Your task to perform on an android device: turn notification dots on Image 0: 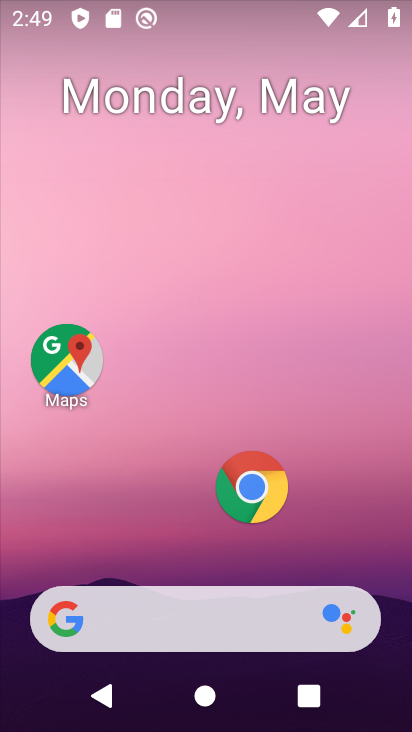
Step 0: drag from (190, 541) to (201, 96)
Your task to perform on an android device: turn notification dots on Image 1: 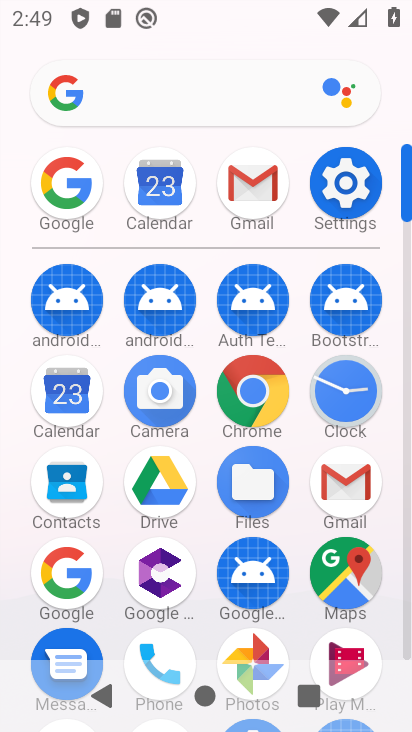
Step 1: click (354, 161)
Your task to perform on an android device: turn notification dots on Image 2: 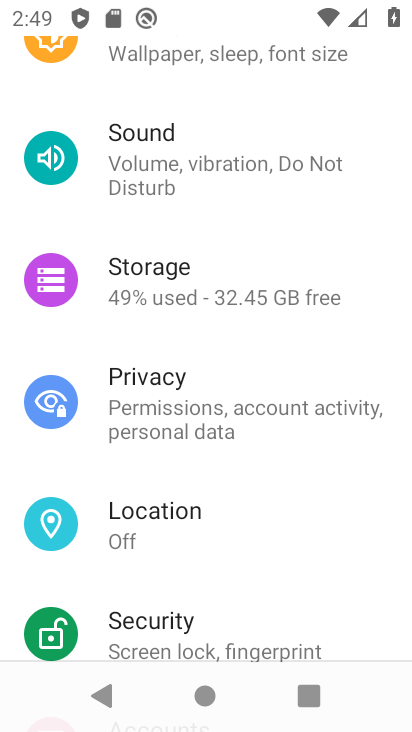
Step 2: drag from (208, 218) to (207, 461)
Your task to perform on an android device: turn notification dots on Image 3: 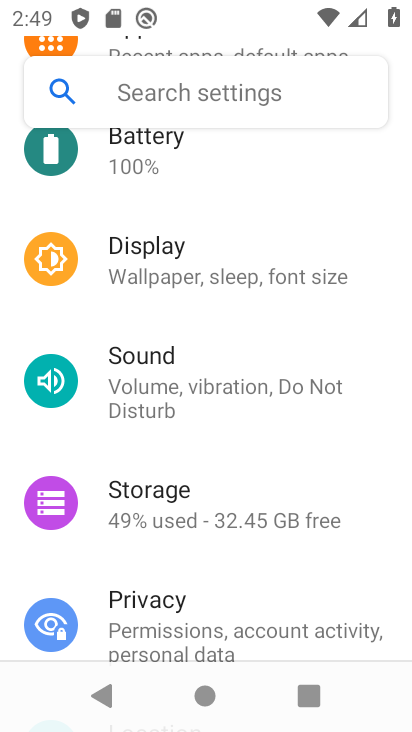
Step 3: drag from (211, 226) to (234, 408)
Your task to perform on an android device: turn notification dots on Image 4: 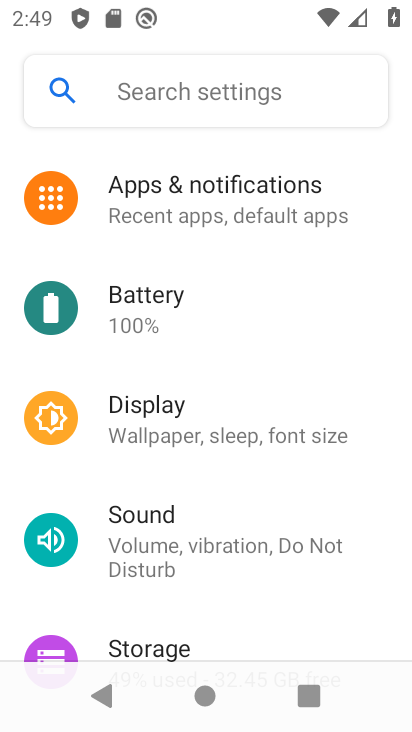
Step 4: click (186, 194)
Your task to perform on an android device: turn notification dots on Image 5: 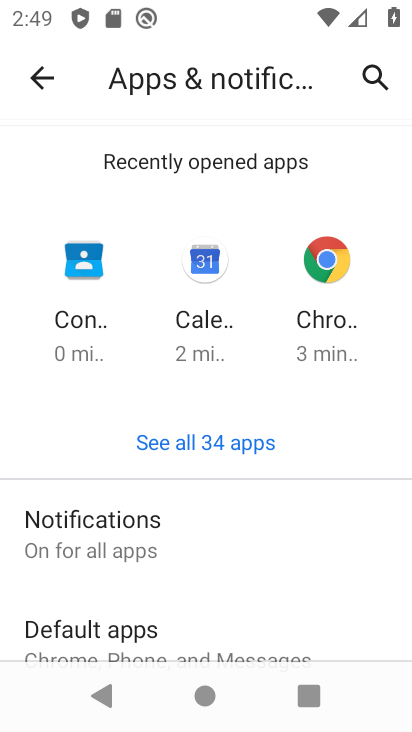
Step 5: click (159, 530)
Your task to perform on an android device: turn notification dots on Image 6: 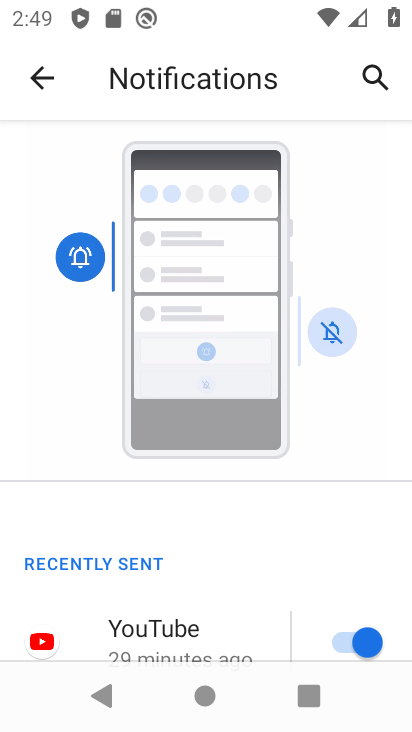
Step 6: drag from (120, 626) to (156, 359)
Your task to perform on an android device: turn notification dots on Image 7: 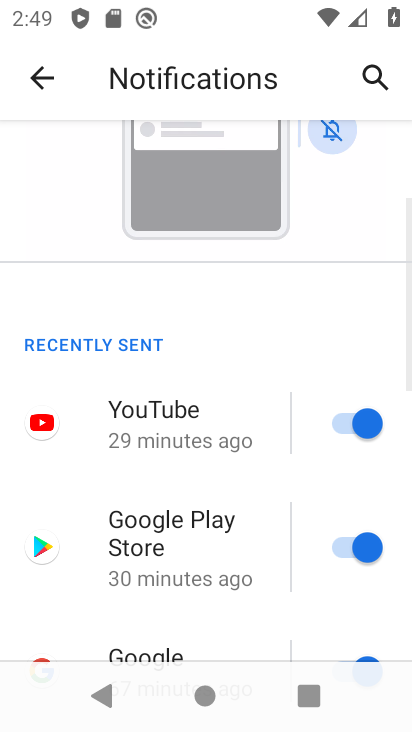
Step 7: drag from (210, 574) to (236, 231)
Your task to perform on an android device: turn notification dots on Image 8: 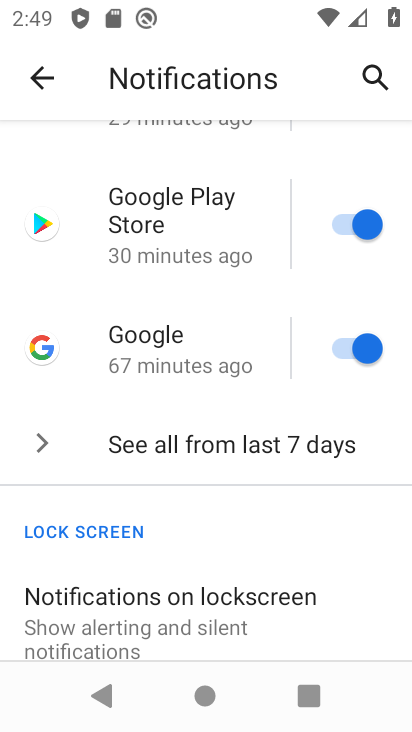
Step 8: drag from (203, 598) to (227, 317)
Your task to perform on an android device: turn notification dots on Image 9: 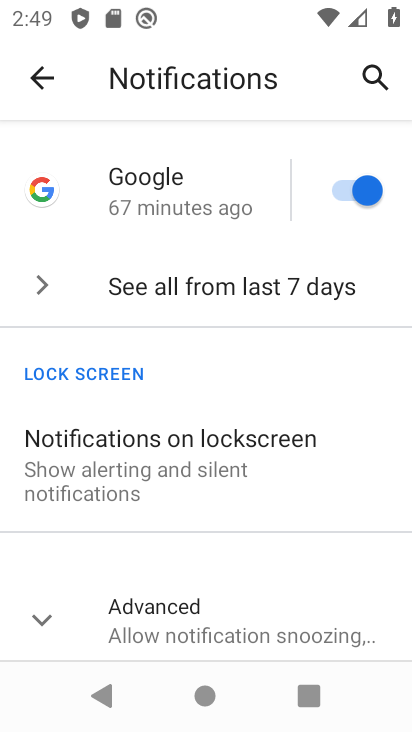
Step 9: click (164, 623)
Your task to perform on an android device: turn notification dots on Image 10: 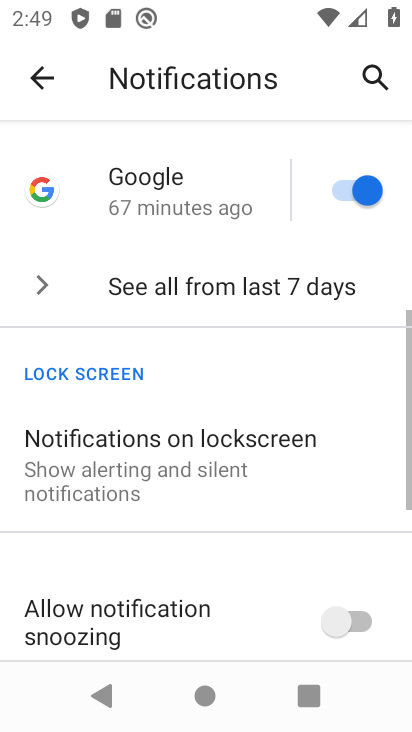
Step 10: drag from (178, 608) to (194, 92)
Your task to perform on an android device: turn notification dots on Image 11: 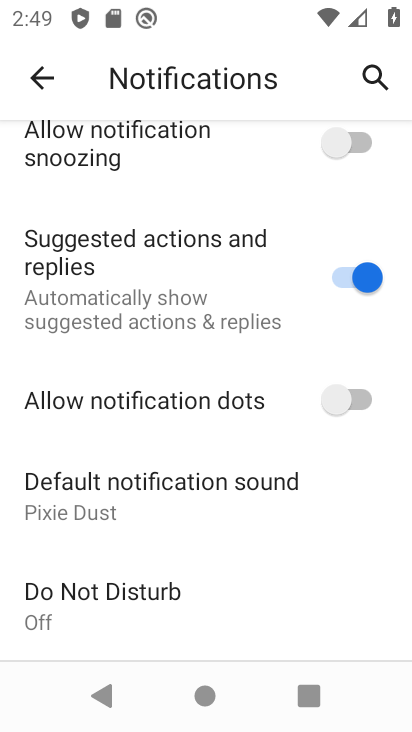
Step 11: click (343, 402)
Your task to perform on an android device: turn notification dots on Image 12: 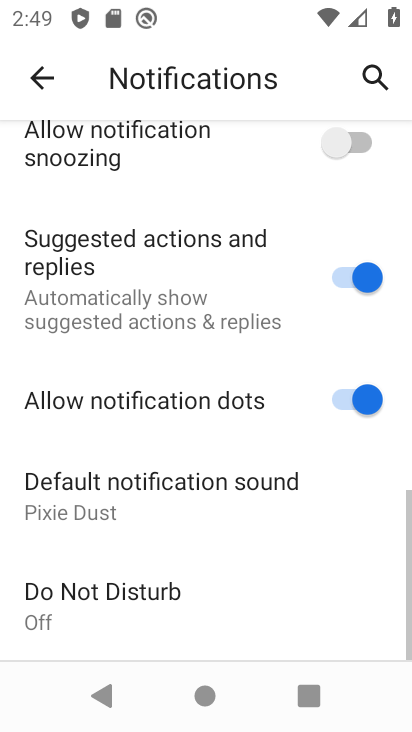
Step 12: task complete